Your task to perform on an android device: Open eBay Image 0: 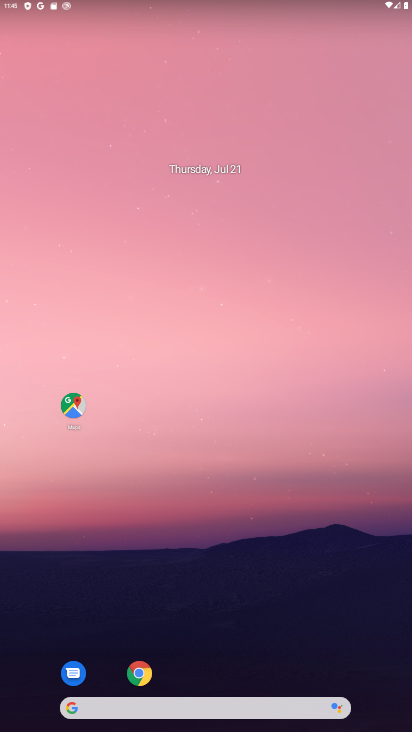
Step 0: click (142, 667)
Your task to perform on an android device: Open eBay Image 1: 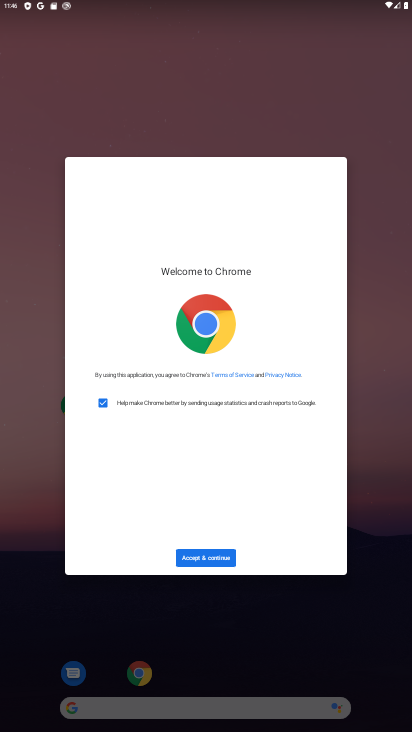
Step 1: click (209, 554)
Your task to perform on an android device: Open eBay Image 2: 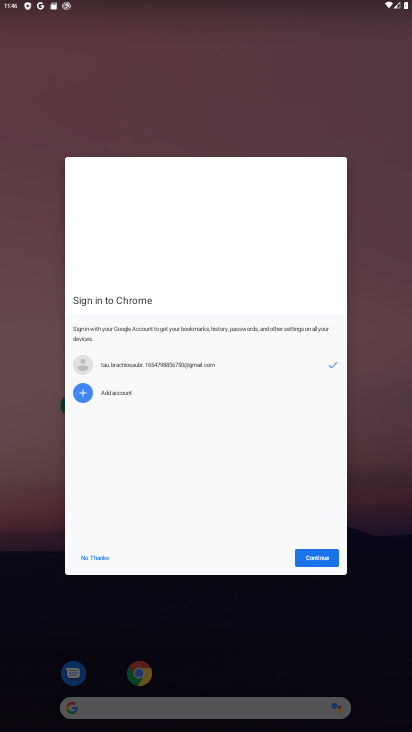
Step 2: click (302, 555)
Your task to perform on an android device: Open eBay Image 3: 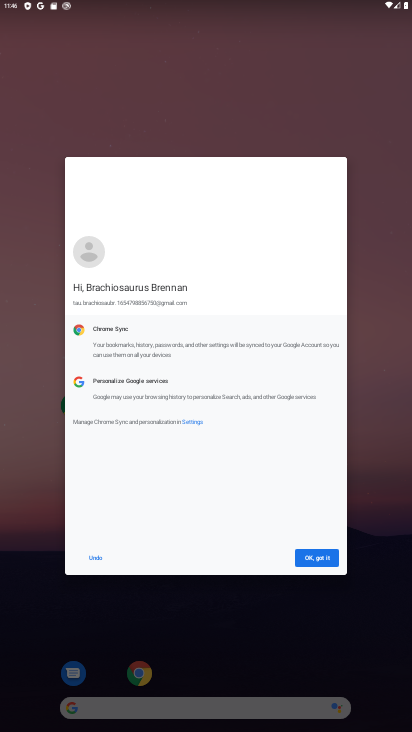
Step 3: click (302, 555)
Your task to perform on an android device: Open eBay Image 4: 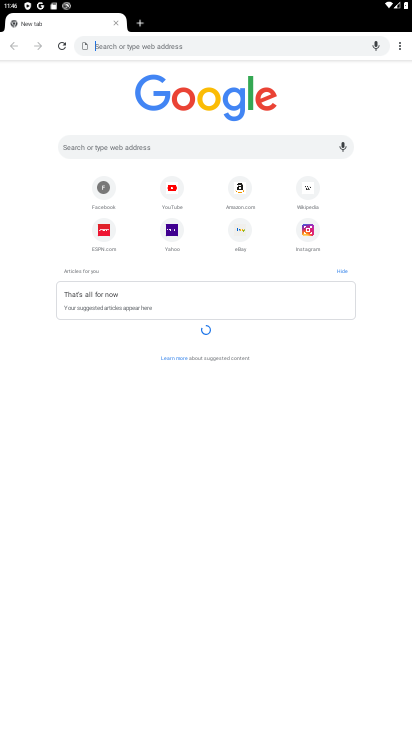
Step 4: click (244, 228)
Your task to perform on an android device: Open eBay Image 5: 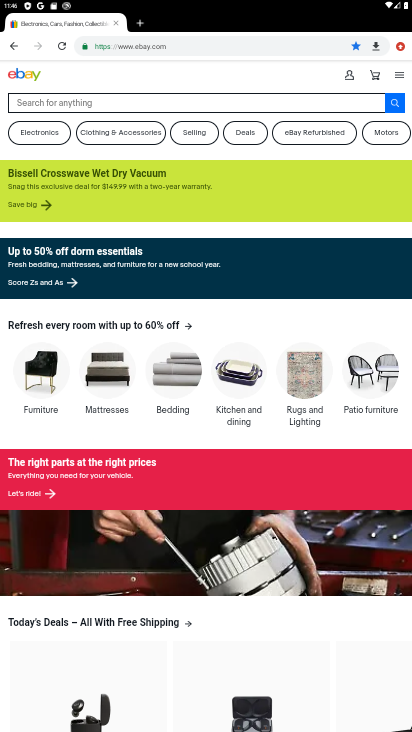
Step 5: task complete